Your task to perform on an android device: Search for Italian restaurants on Maps Image 0: 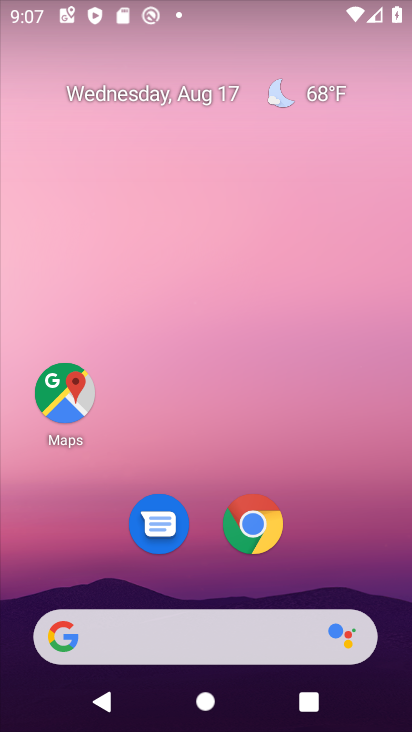
Step 0: click (65, 389)
Your task to perform on an android device: Search for Italian restaurants on Maps Image 1: 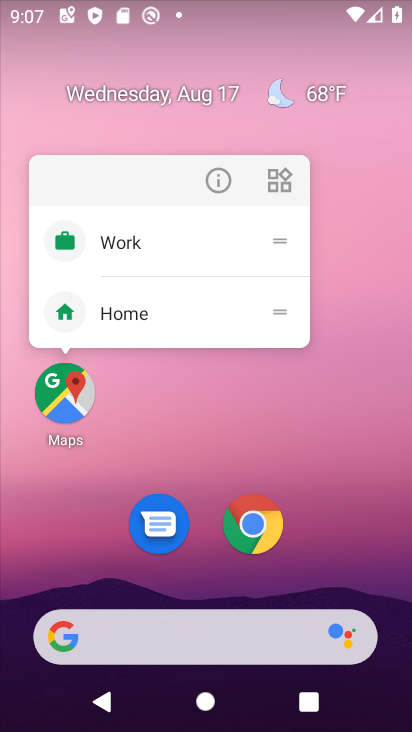
Step 1: click (73, 386)
Your task to perform on an android device: Search for Italian restaurants on Maps Image 2: 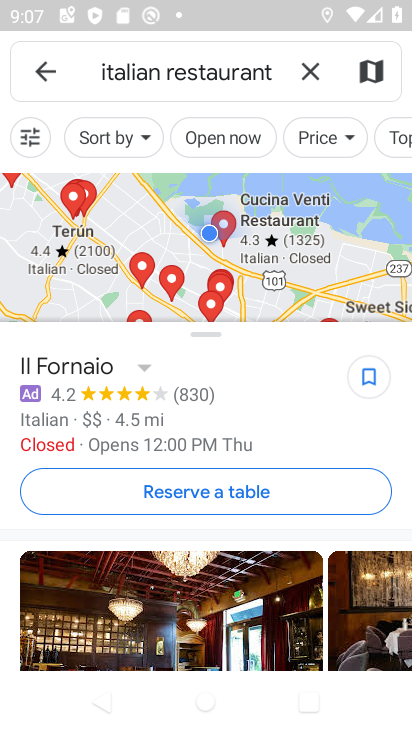
Step 2: task complete